Your task to perform on an android device: open sync settings in chrome Image 0: 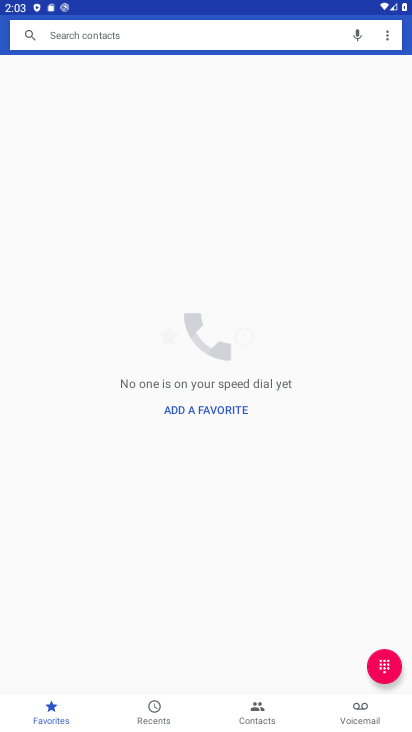
Step 0: press home button
Your task to perform on an android device: open sync settings in chrome Image 1: 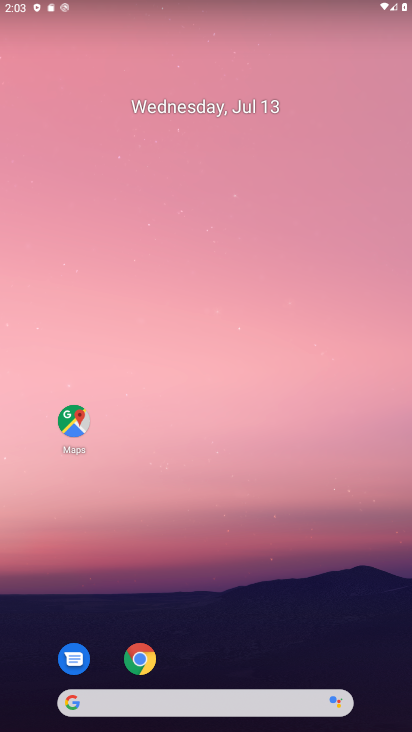
Step 1: drag from (138, 693) to (306, 114)
Your task to perform on an android device: open sync settings in chrome Image 2: 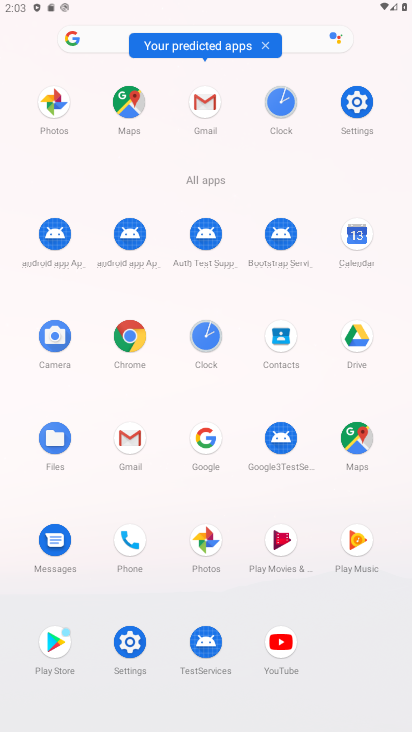
Step 2: click (358, 107)
Your task to perform on an android device: open sync settings in chrome Image 3: 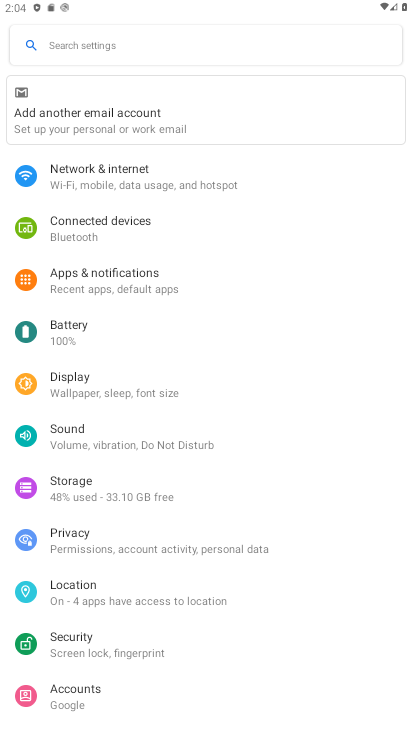
Step 3: click (127, 391)
Your task to perform on an android device: open sync settings in chrome Image 4: 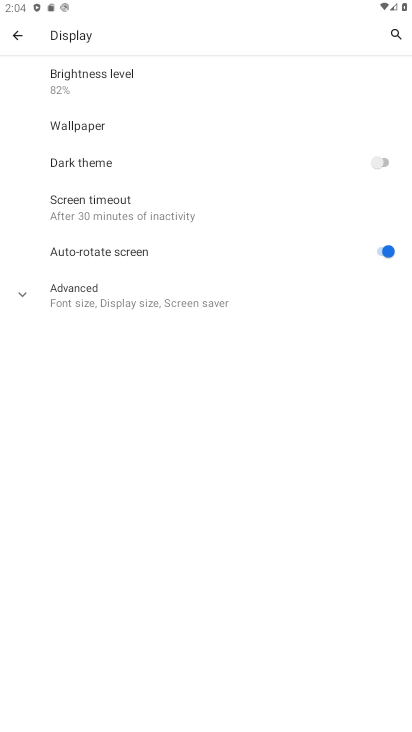
Step 4: click (71, 283)
Your task to perform on an android device: open sync settings in chrome Image 5: 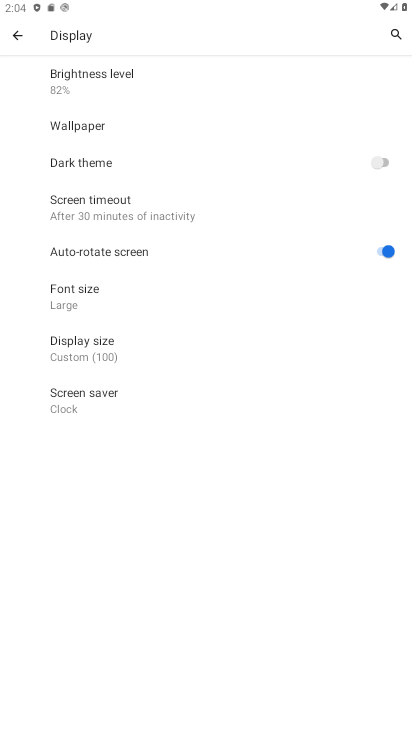
Step 5: click (87, 341)
Your task to perform on an android device: open sync settings in chrome Image 6: 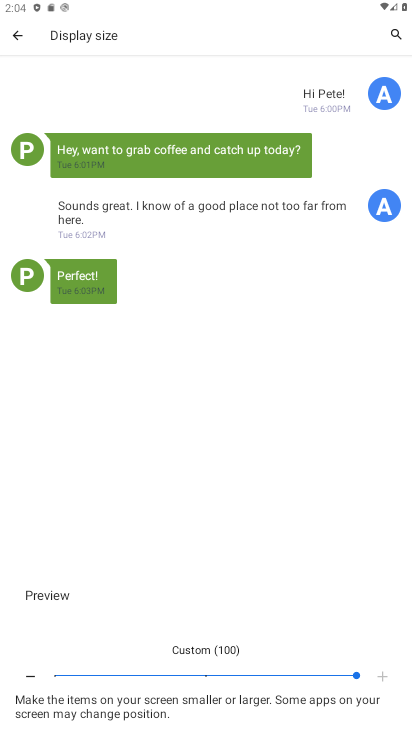
Step 6: click (35, 679)
Your task to perform on an android device: open sync settings in chrome Image 7: 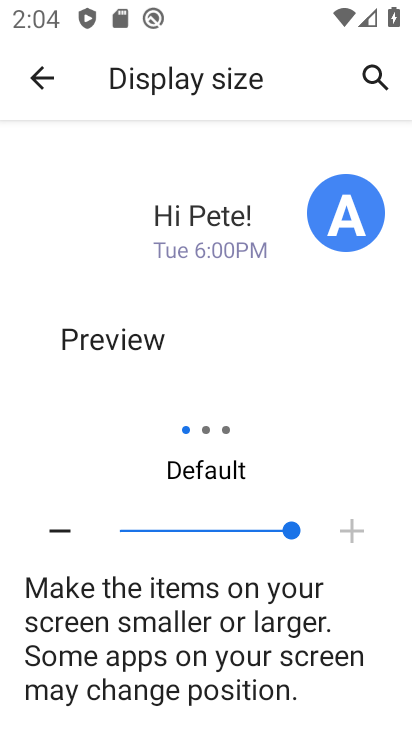
Step 7: click (66, 526)
Your task to perform on an android device: open sync settings in chrome Image 8: 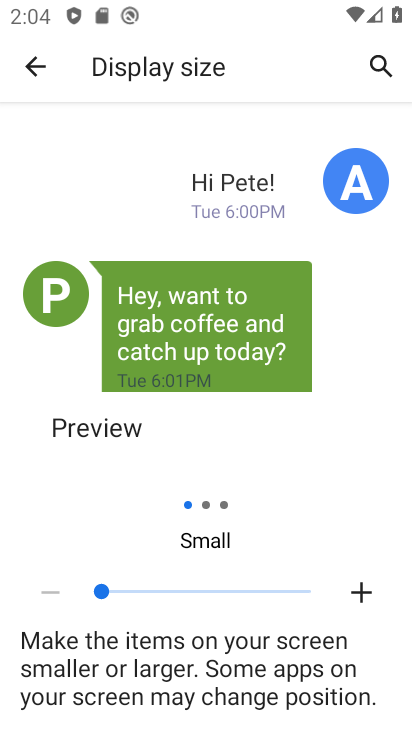
Step 8: task complete